Your task to perform on an android device: Open the stopwatch Image 0: 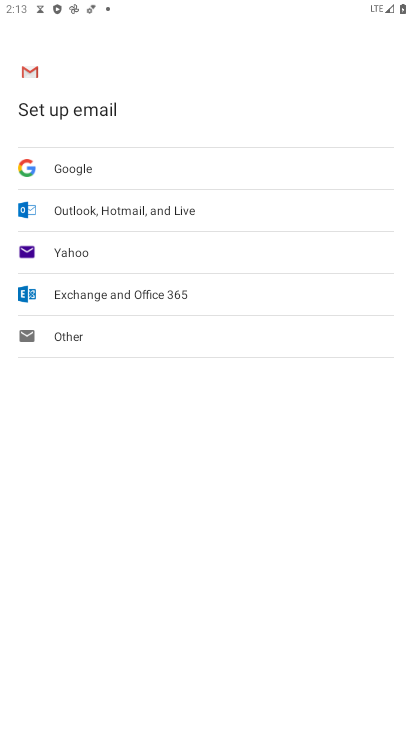
Step 0: press home button
Your task to perform on an android device: Open the stopwatch Image 1: 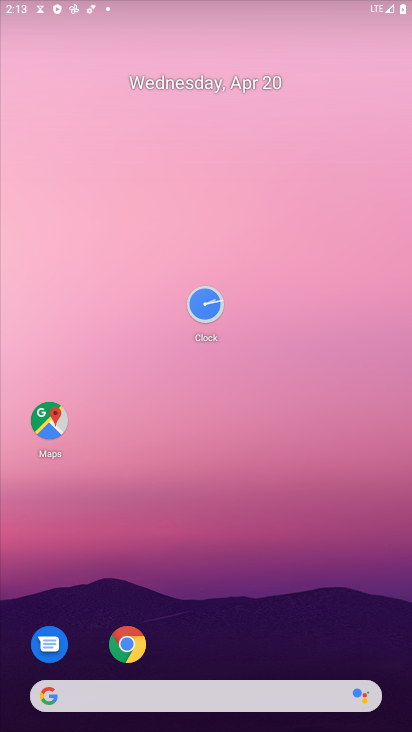
Step 1: drag from (269, 622) to (357, 41)
Your task to perform on an android device: Open the stopwatch Image 2: 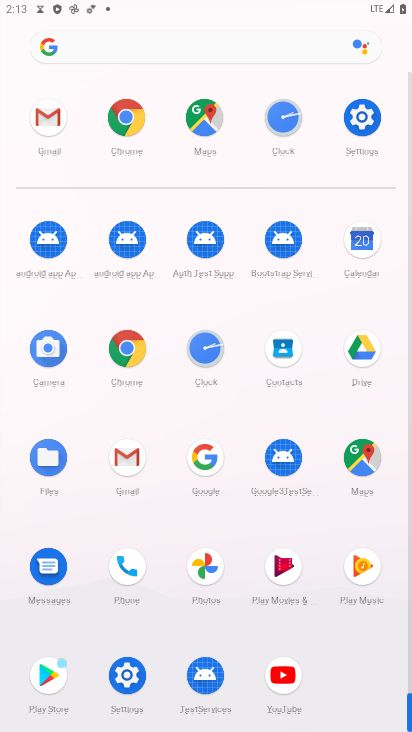
Step 2: click (216, 356)
Your task to perform on an android device: Open the stopwatch Image 3: 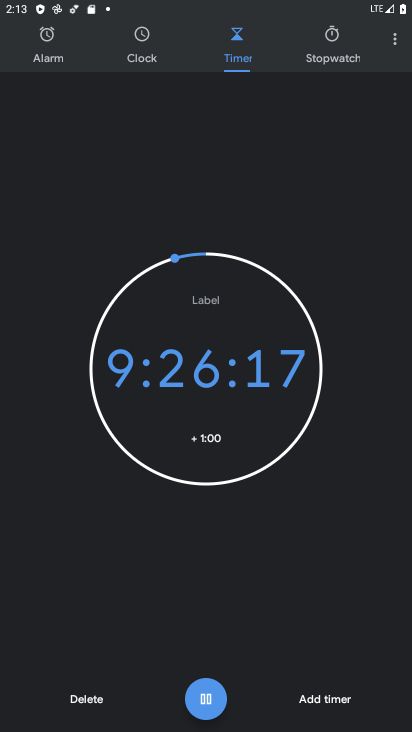
Step 3: click (315, 58)
Your task to perform on an android device: Open the stopwatch Image 4: 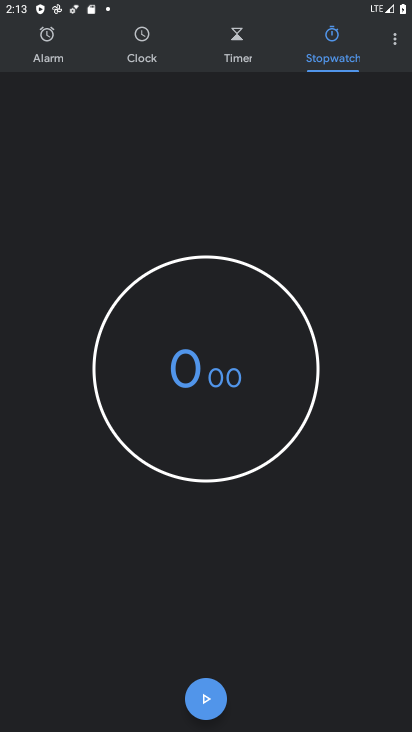
Step 4: click (207, 705)
Your task to perform on an android device: Open the stopwatch Image 5: 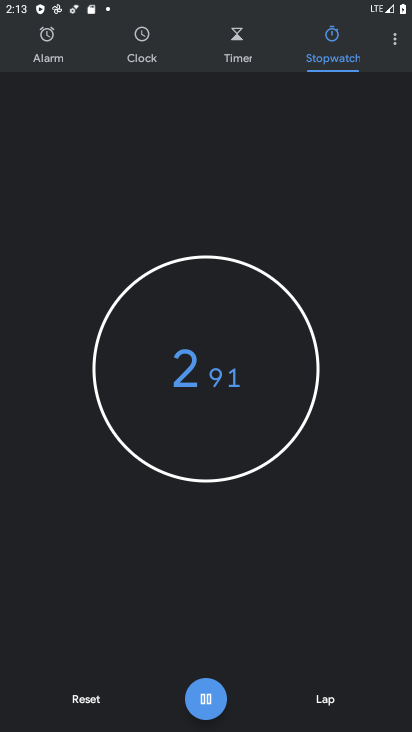
Step 5: task complete